Your task to perform on an android device: Go to Google Image 0: 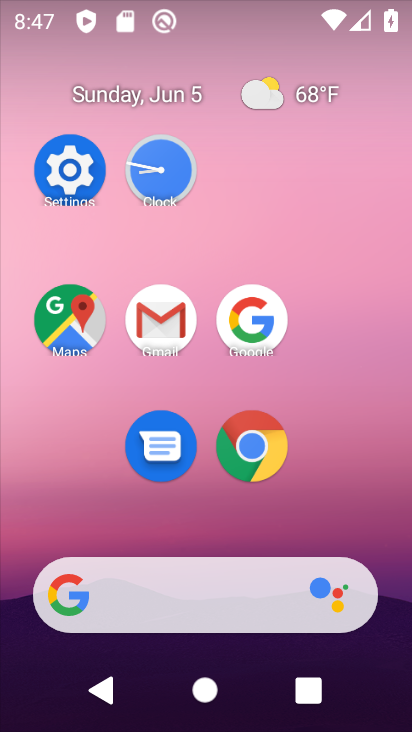
Step 0: click (255, 331)
Your task to perform on an android device: Go to Google Image 1: 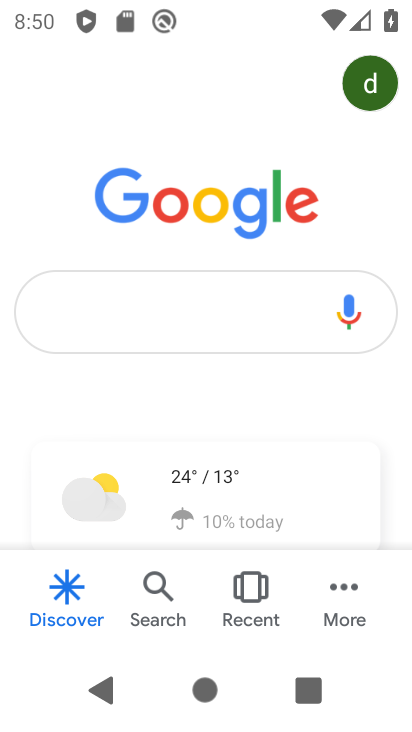
Step 1: task complete